Your task to perform on an android device: Clear all items from cart on costco.com. Search for "bose soundlink" on costco.com, select the first entry, and add it to the cart. Image 0: 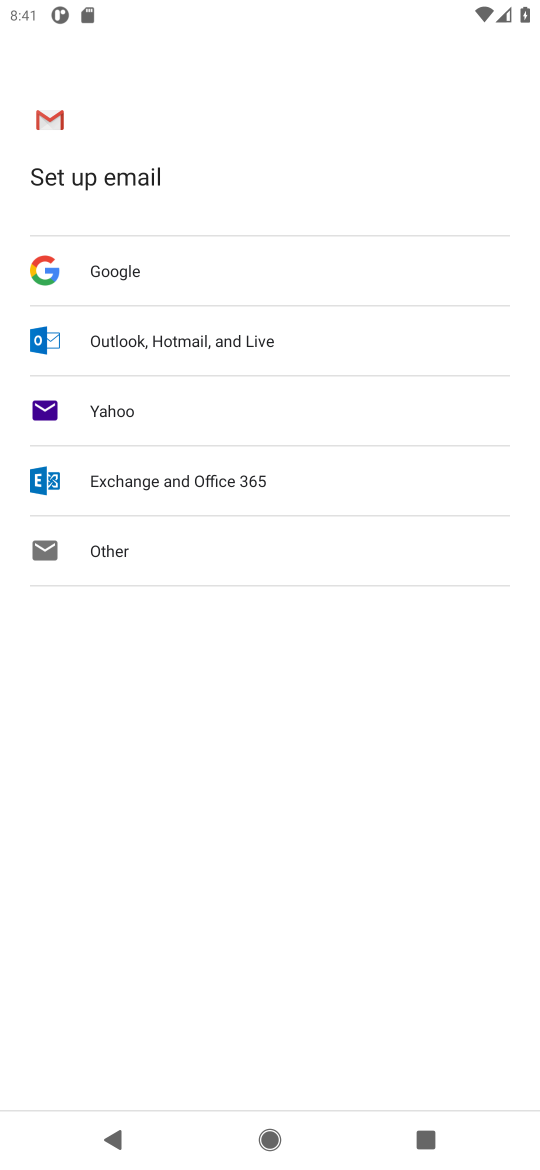
Step 0: press home button
Your task to perform on an android device: Clear all items from cart on costco.com. Search for "bose soundlink" on costco.com, select the first entry, and add it to the cart. Image 1: 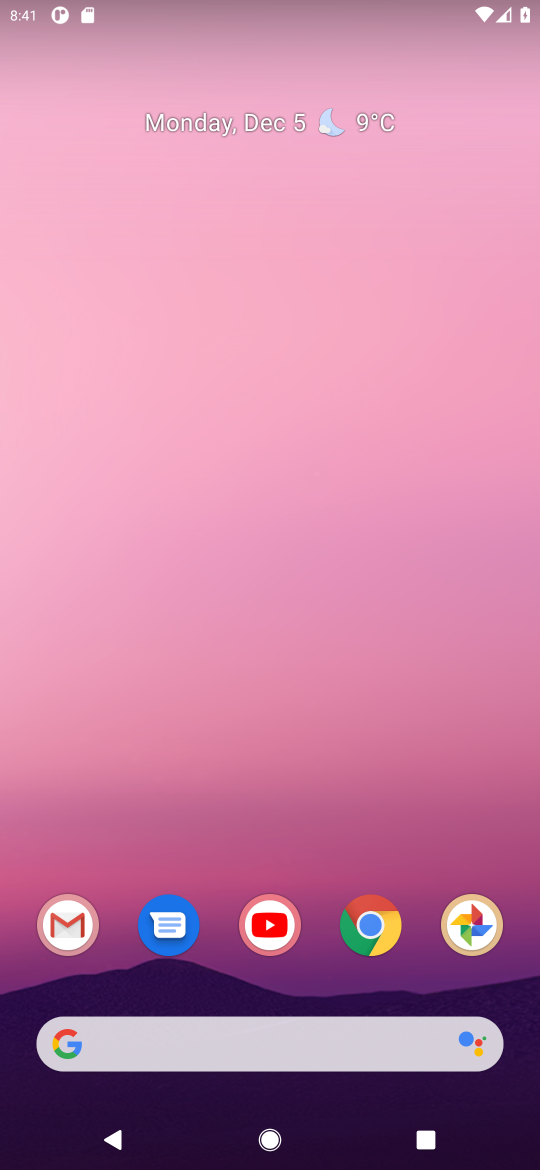
Step 1: click (377, 917)
Your task to perform on an android device: Clear all items from cart on costco.com. Search for "bose soundlink" on costco.com, select the first entry, and add it to the cart. Image 2: 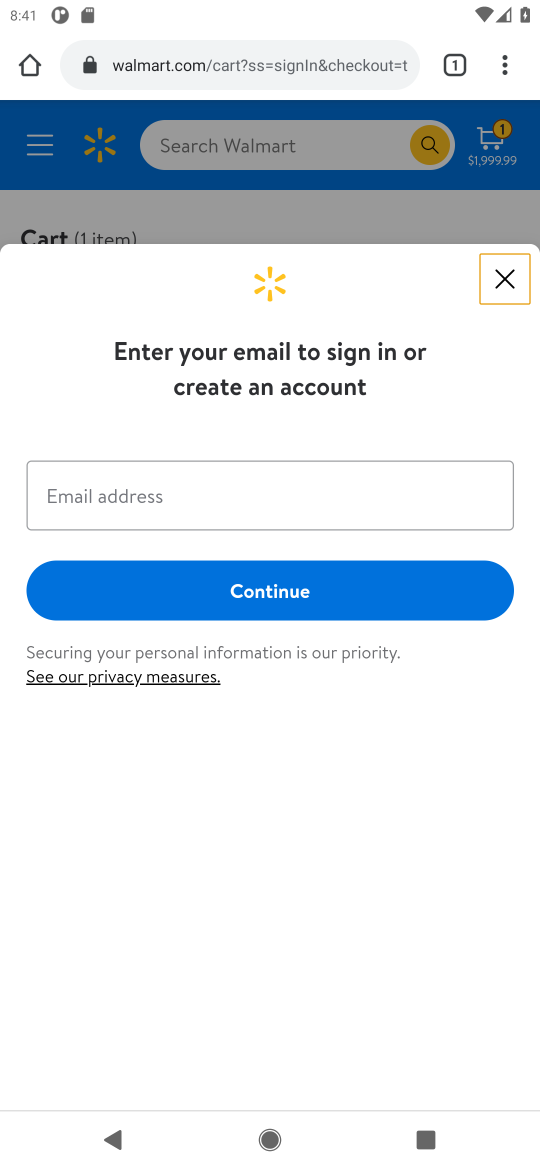
Step 2: click (208, 69)
Your task to perform on an android device: Clear all items from cart on costco.com. Search for "bose soundlink" on costco.com, select the first entry, and add it to the cart. Image 3: 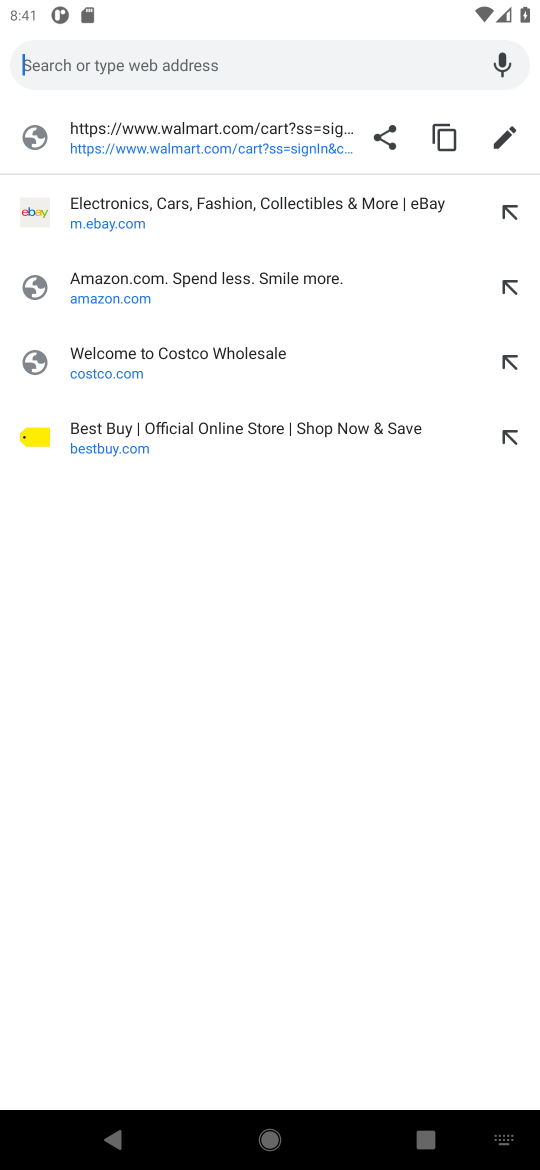
Step 3: click (100, 375)
Your task to perform on an android device: Clear all items from cart on costco.com. Search for "bose soundlink" on costco.com, select the first entry, and add it to the cart. Image 4: 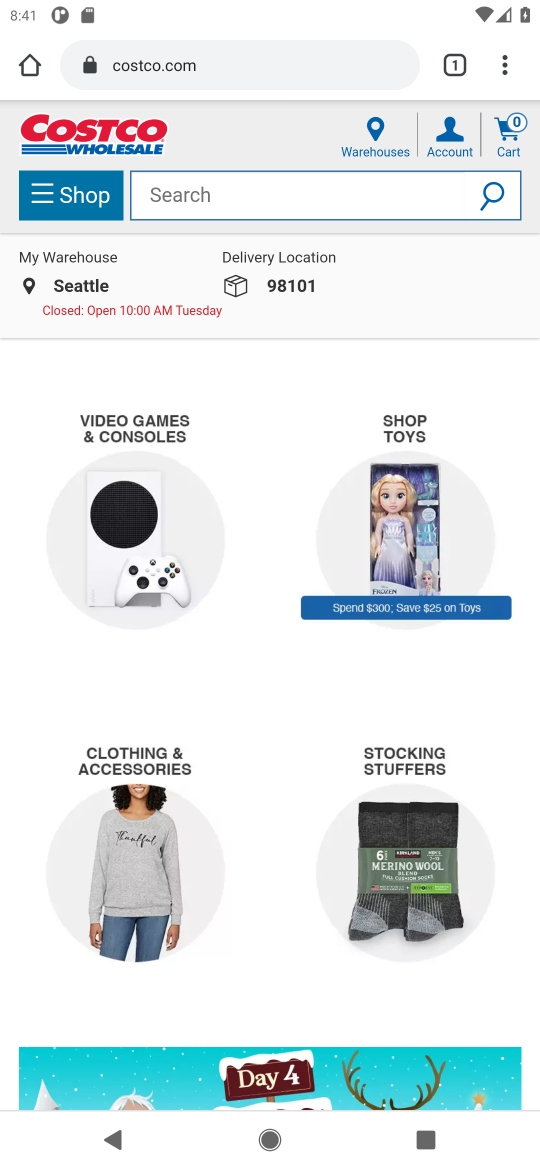
Step 4: click (509, 146)
Your task to perform on an android device: Clear all items from cart on costco.com. Search for "bose soundlink" on costco.com, select the first entry, and add it to the cart. Image 5: 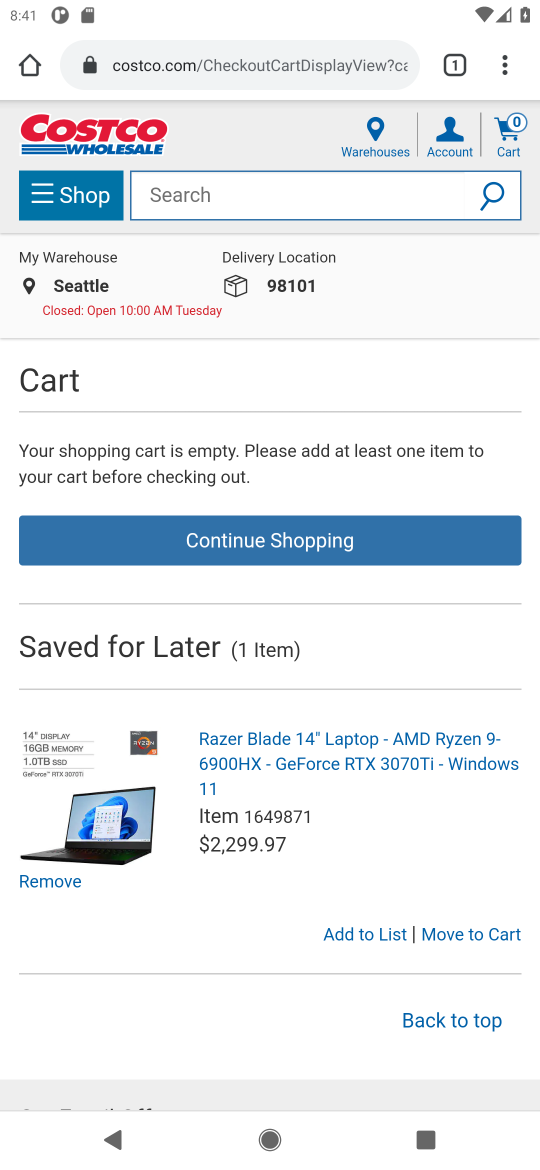
Step 5: click (197, 200)
Your task to perform on an android device: Clear all items from cart on costco.com. Search for "bose soundlink" on costco.com, select the first entry, and add it to the cart. Image 6: 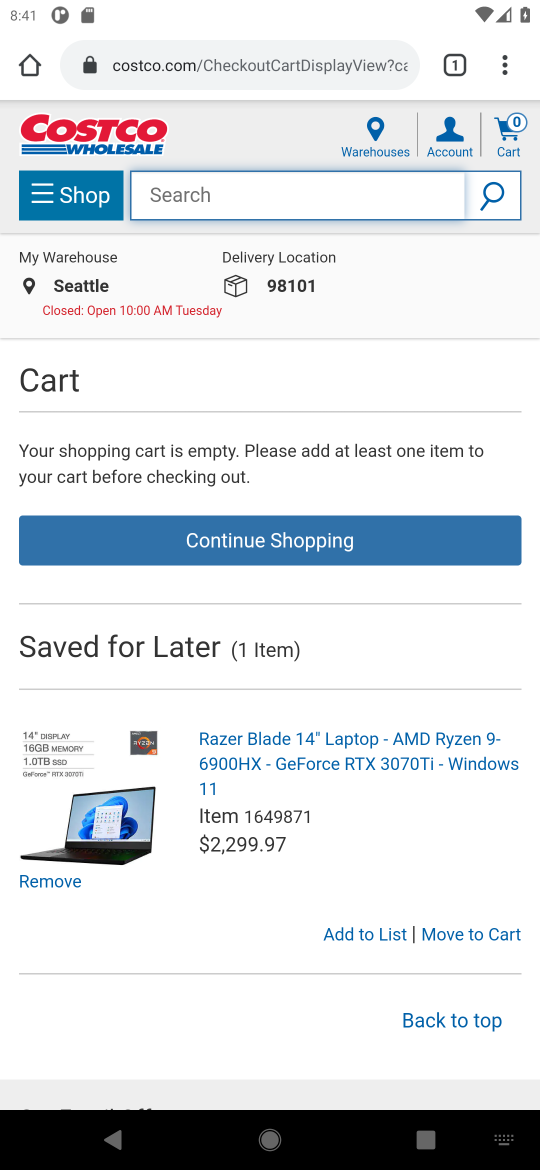
Step 6: type "bose soundlink"
Your task to perform on an android device: Clear all items from cart on costco.com. Search for "bose soundlink" on costco.com, select the first entry, and add it to the cart. Image 7: 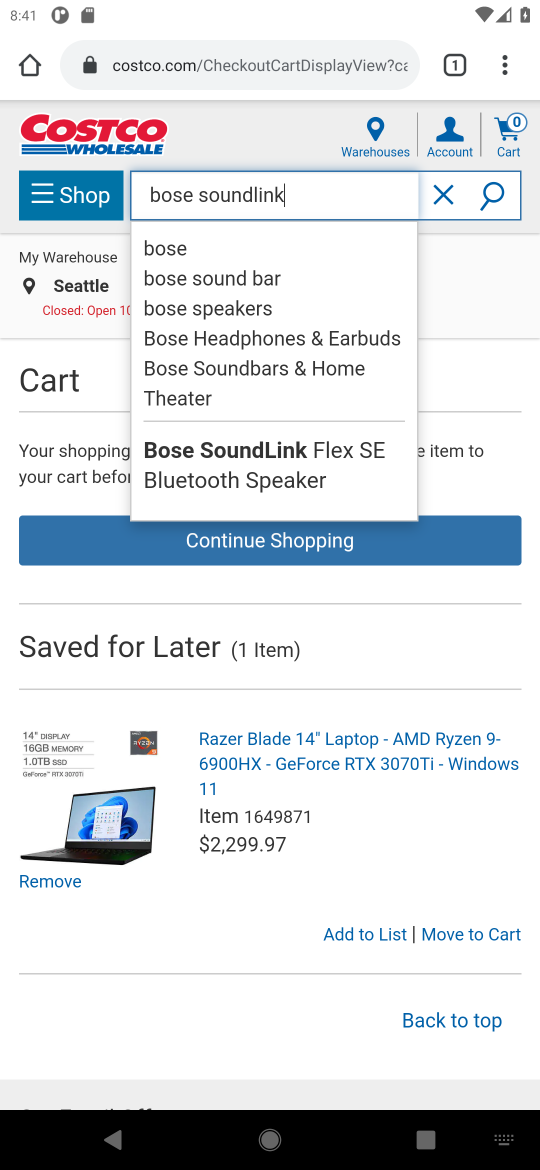
Step 7: click (483, 196)
Your task to perform on an android device: Clear all items from cart on costco.com. Search for "bose soundlink" on costco.com, select the first entry, and add it to the cart. Image 8: 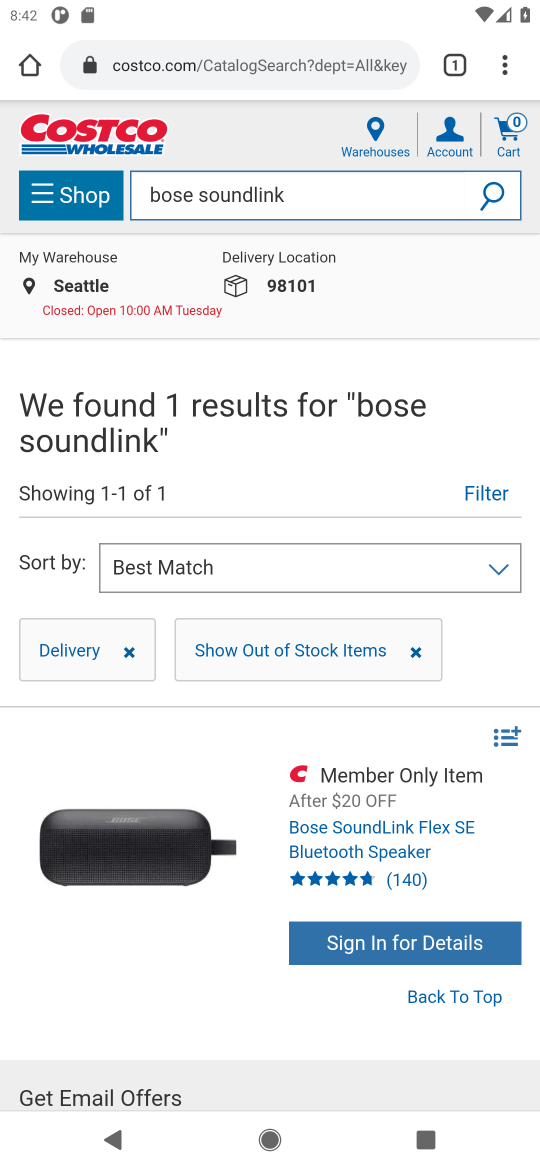
Step 8: click (355, 836)
Your task to perform on an android device: Clear all items from cart on costco.com. Search for "bose soundlink" on costco.com, select the first entry, and add it to the cart. Image 9: 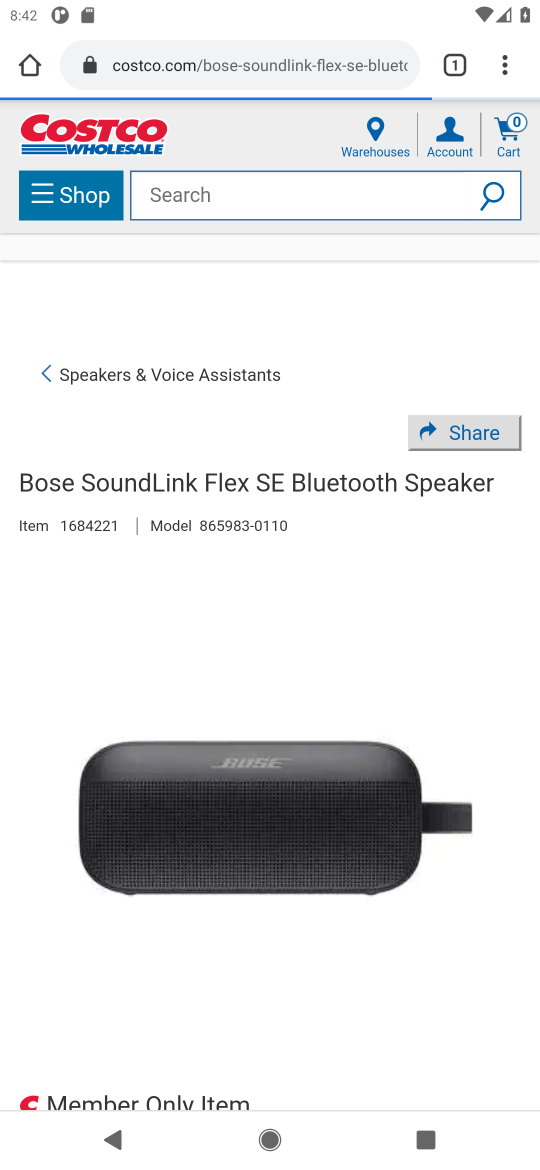
Step 9: task complete